Your task to perform on an android device: Go to calendar. Show me events next week Image 0: 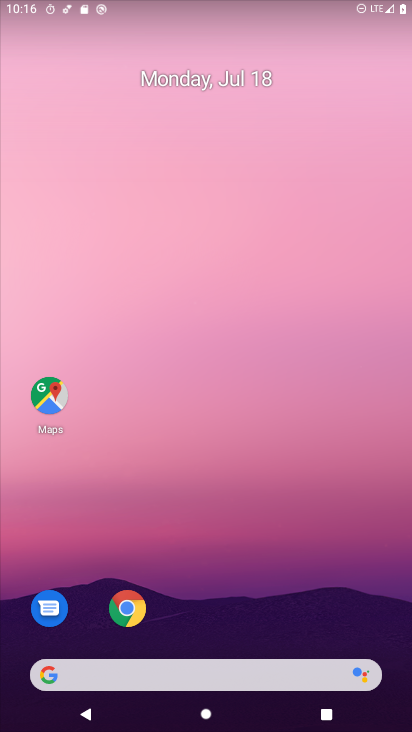
Step 0: drag from (212, 450) to (230, 115)
Your task to perform on an android device: Go to calendar. Show me events next week Image 1: 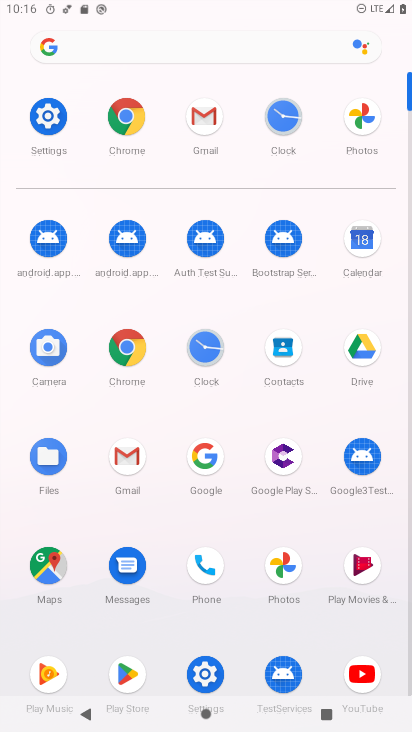
Step 1: click (357, 243)
Your task to perform on an android device: Go to calendar. Show me events next week Image 2: 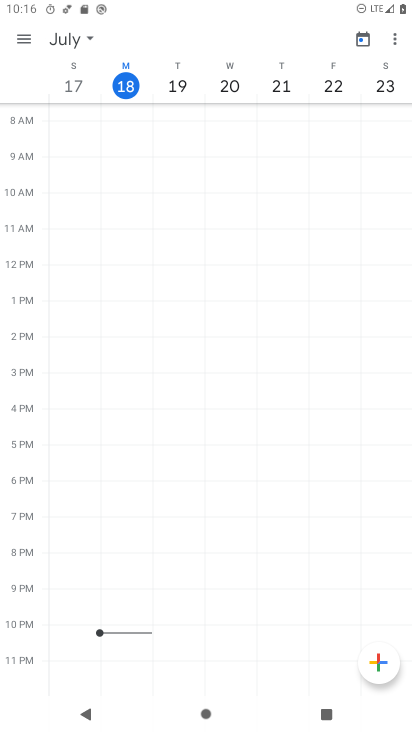
Step 2: click (75, 41)
Your task to perform on an android device: Go to calendar. Show me events next week Image 3: 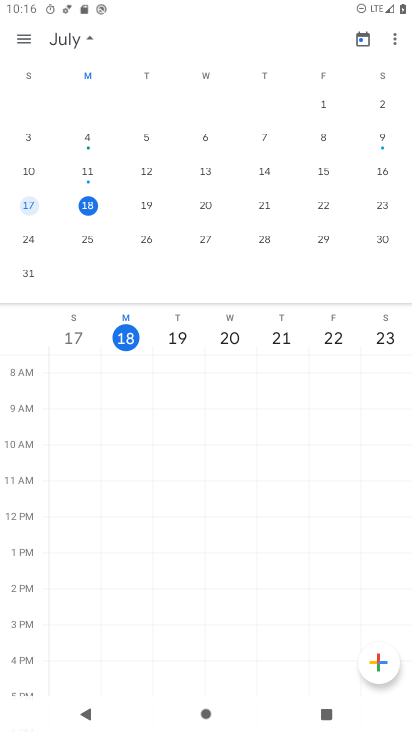
Step 3: click (32, 239)
Your task to perform on an android device: Go to calendar. Show me events next week Image 4: 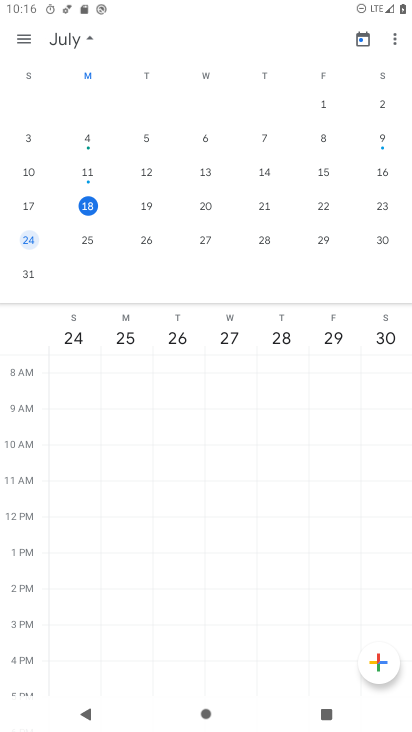
Step 4: task complete